Your task to perform on an android device: install app "The Home Depot" Image 0: 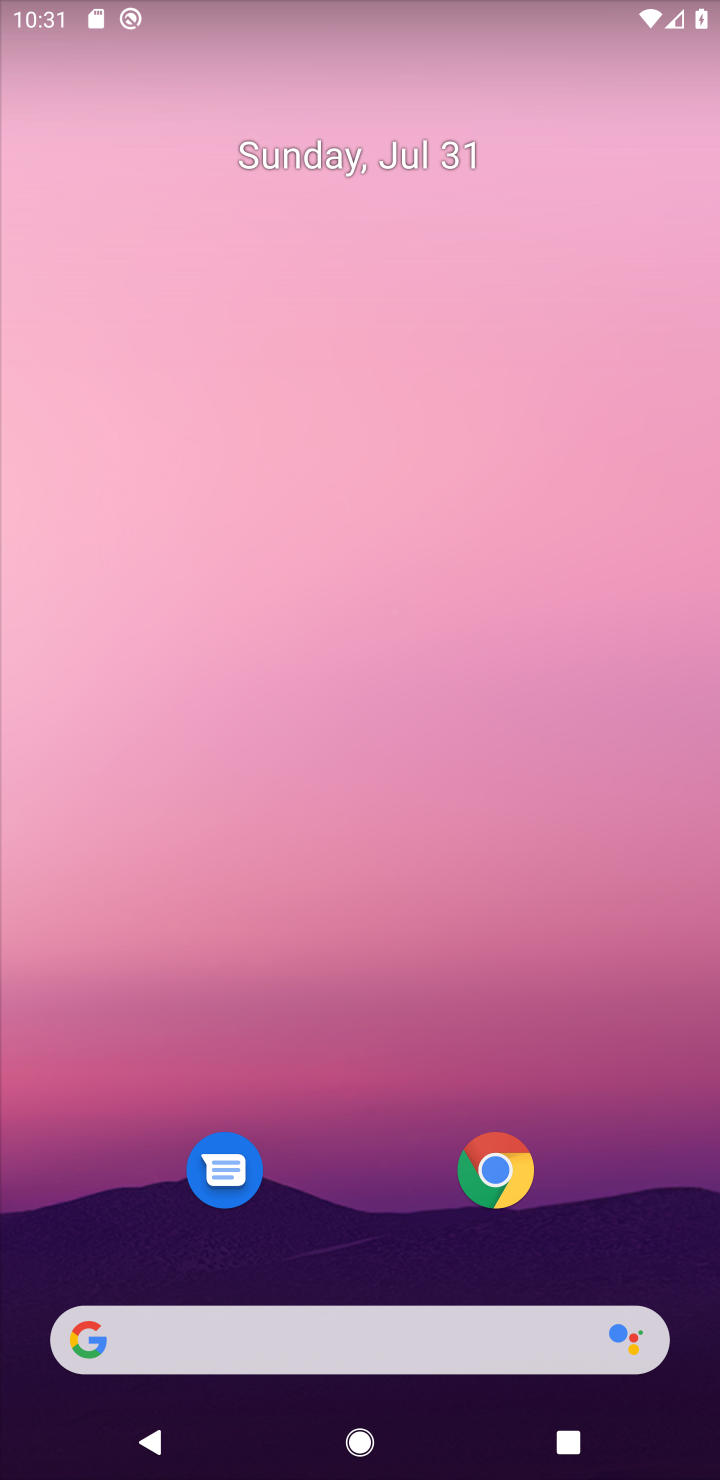
Step 0: press home button
Your task to perform on an android device: install app "The Home Depot" Image 1: 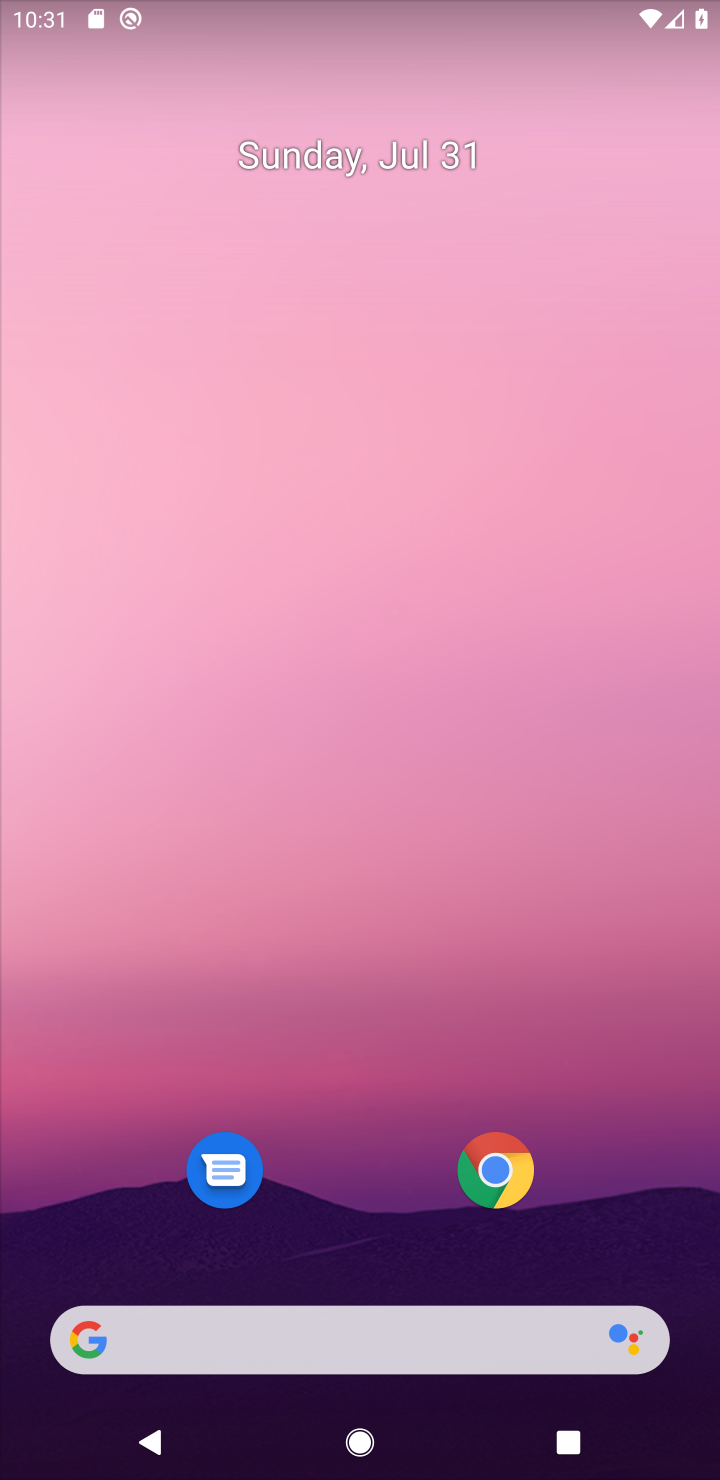
Step 1: drag from (678, 1234) to (322, 36)
Your task to perform on an android device: install app "The Home Depot" Image 2: 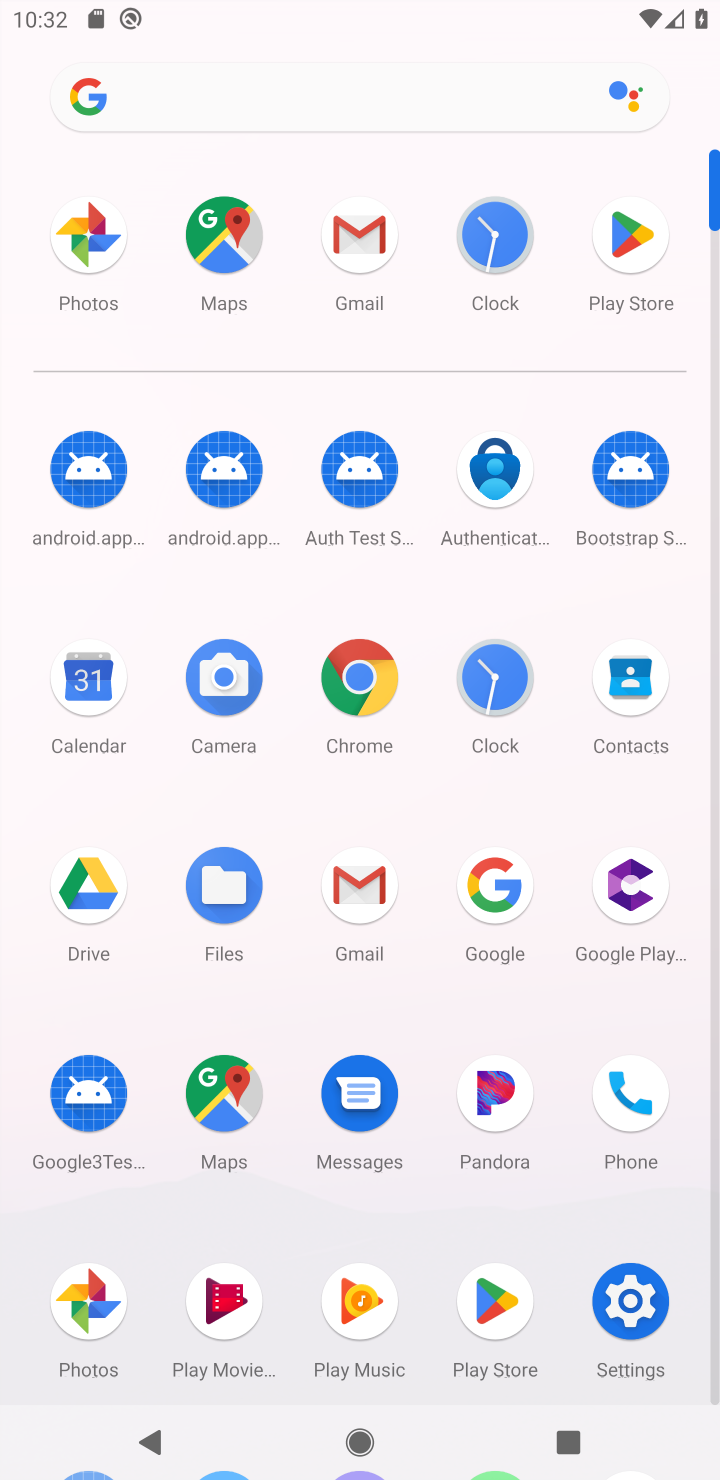
Step 2: click (685, 204)
Your task to perform on an android device: install app "The Home Depot" Image 3: 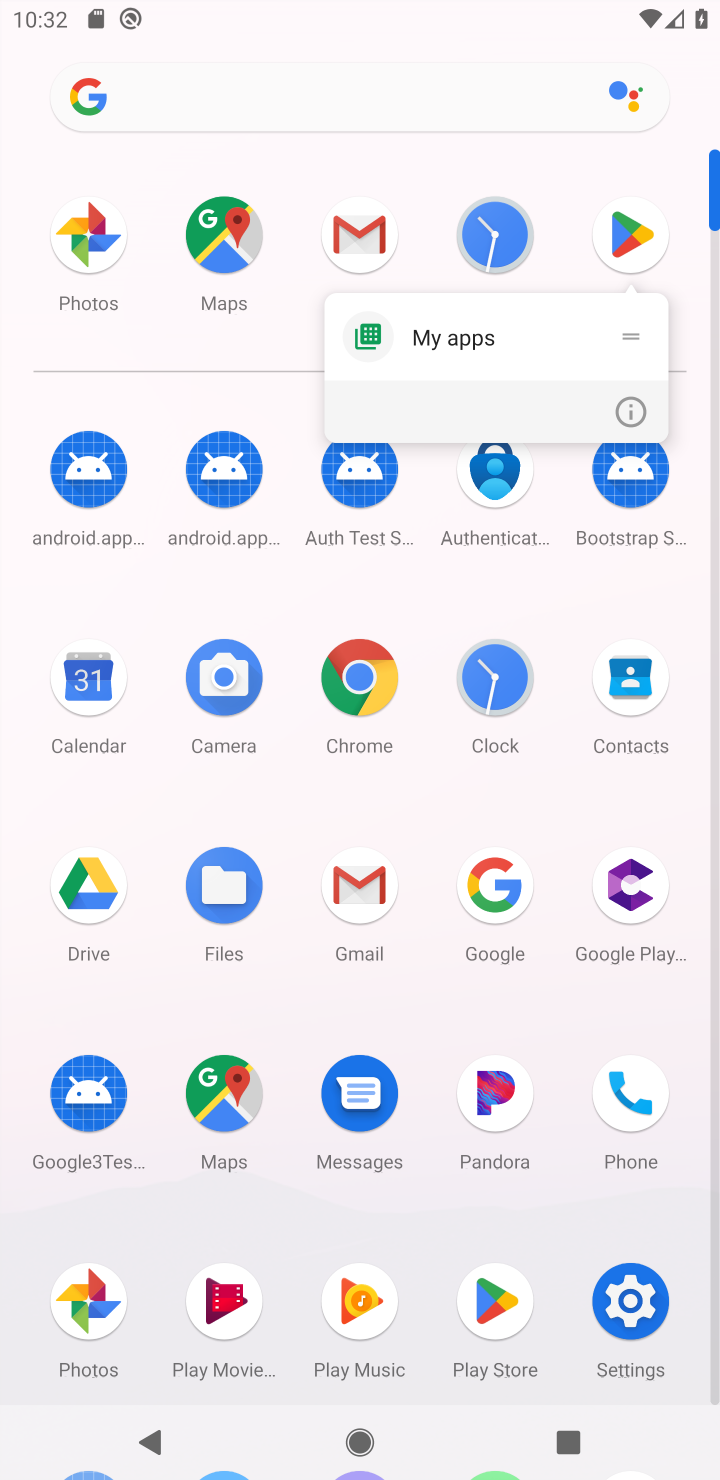
Step 3: click (639, 222)
Your task to perform on an android device: install app "The Home Depot" Image 4: 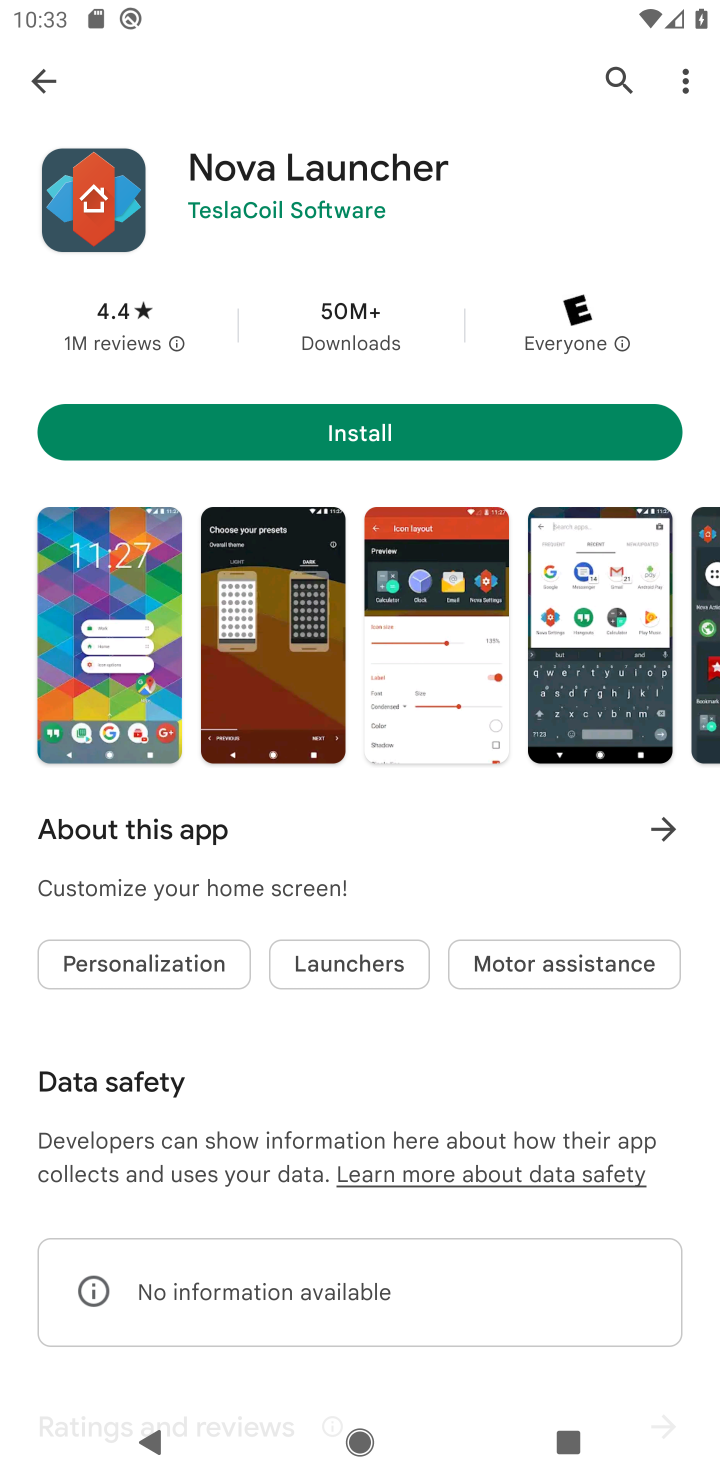
Step 4: press back button
Your task to perform on an android device: install app "The Home Depot" Image 5: 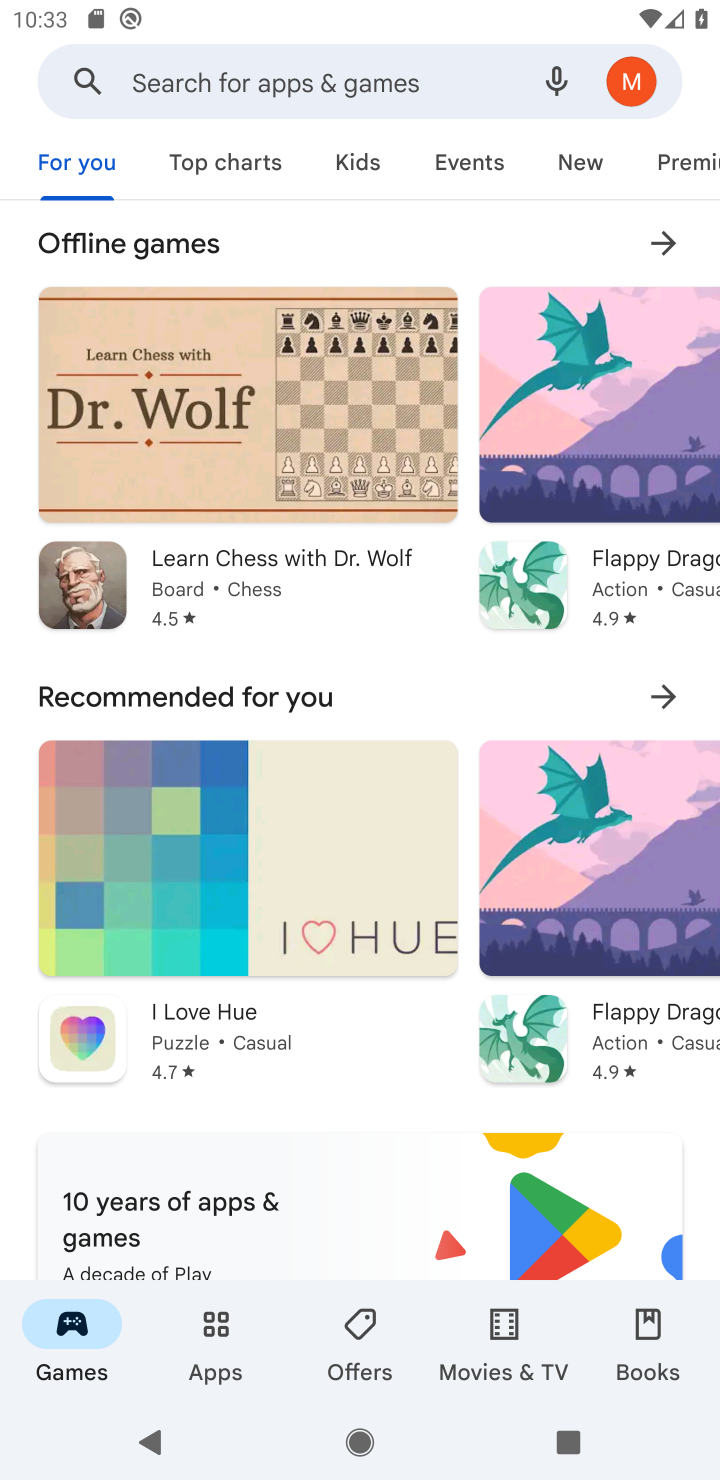
Step 5: click (382, 62)
Your task to perform on an android device: install app "The Home Depot" Image 6: 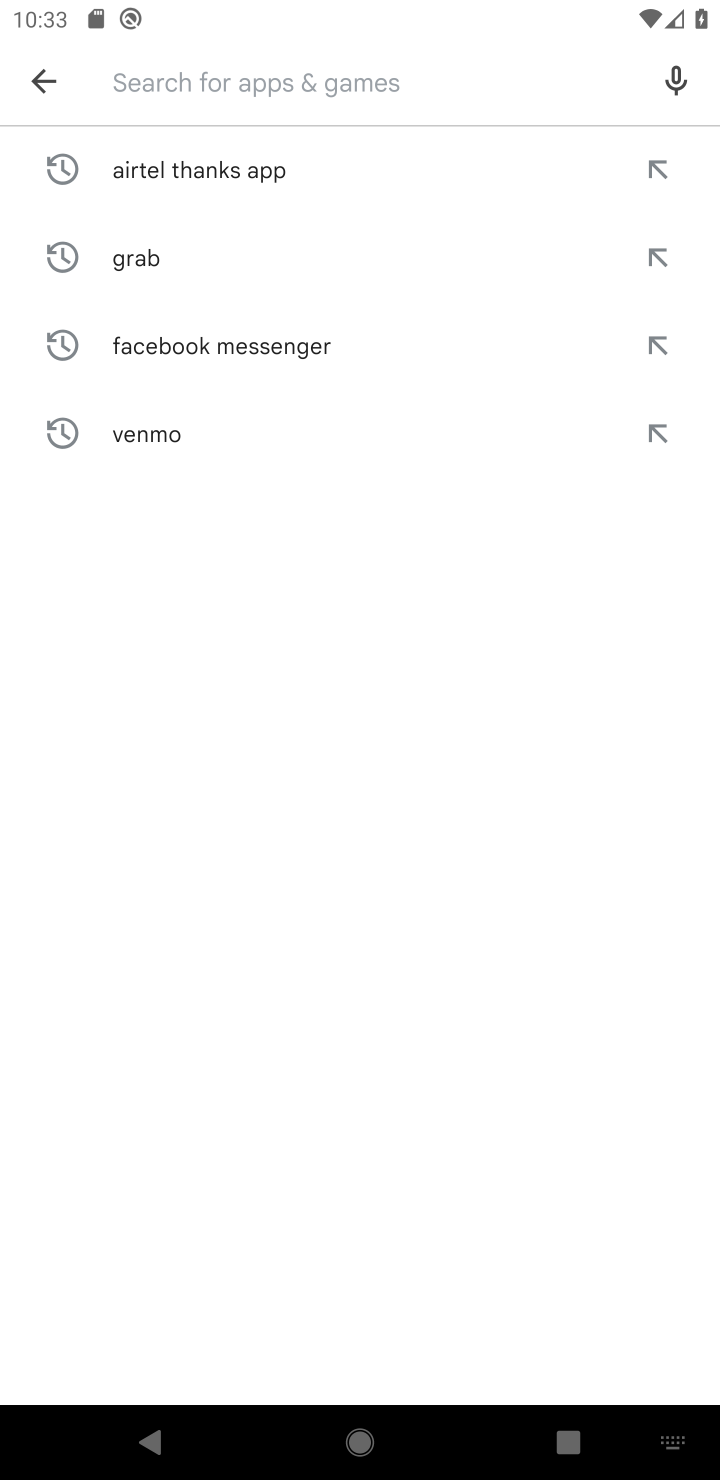
Step 6: type "The Home Depot"
Your task to perform on an android device: install app "The Home Depot" Image 7: 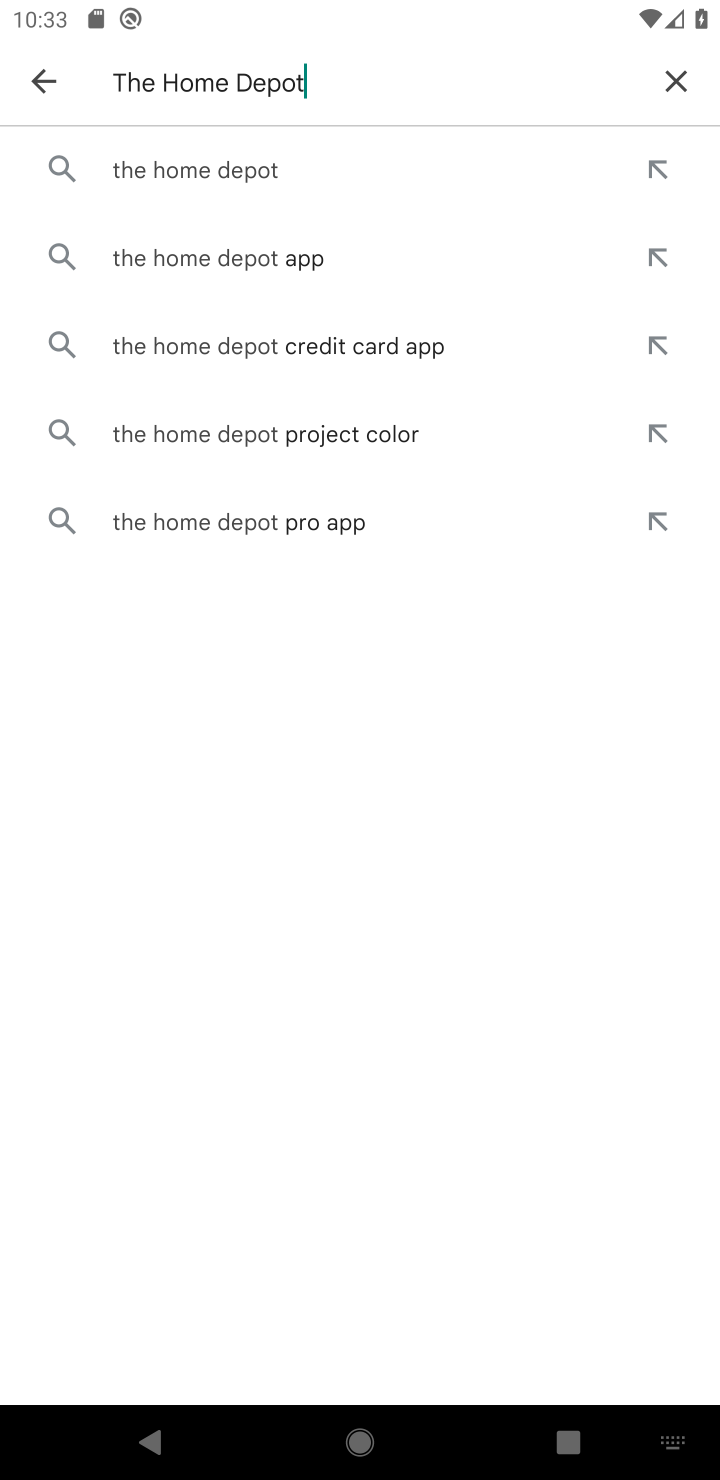
Step 7: click (205, 164)
Your task to perform on an android device: install app "The Home Depot" Image 8: 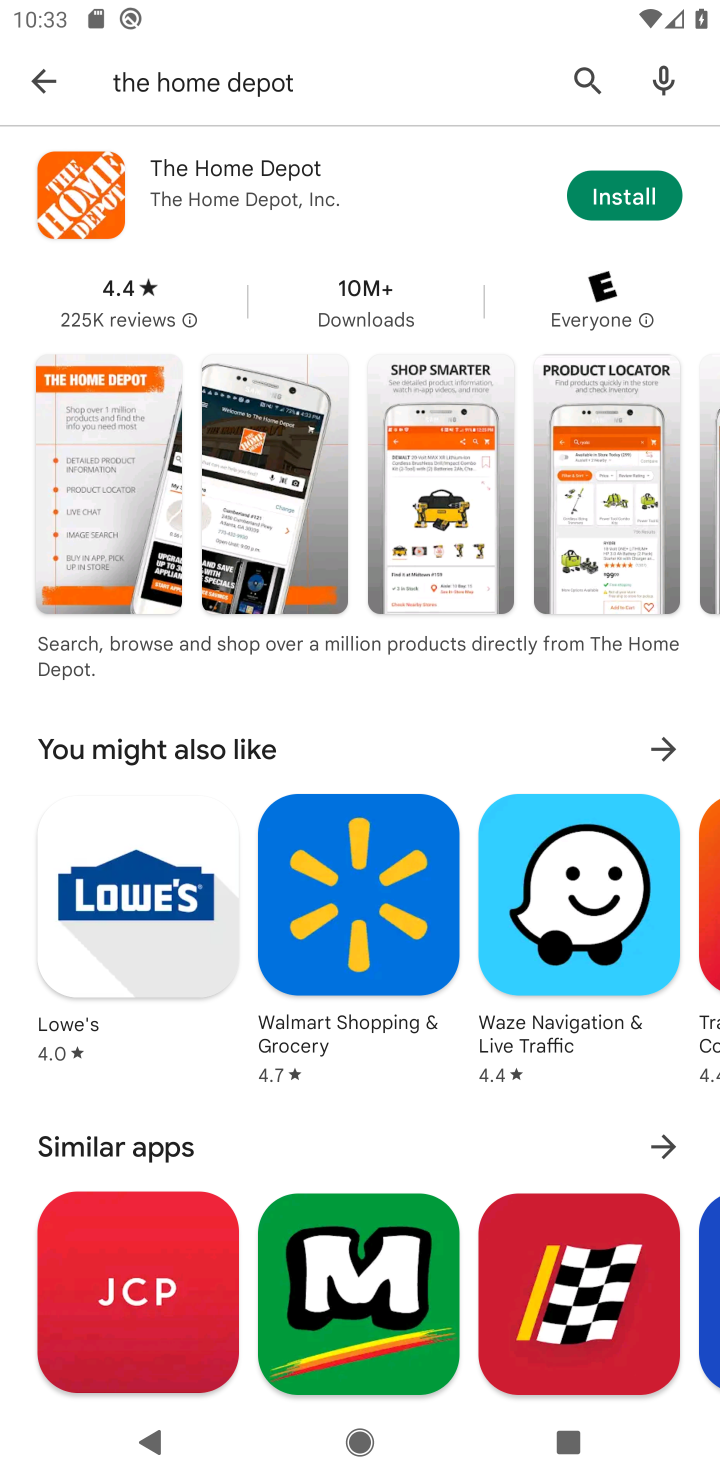
Step 8: click (635, 194)
Your task to perform on an android device: install app "The Home Depot" Image 9: 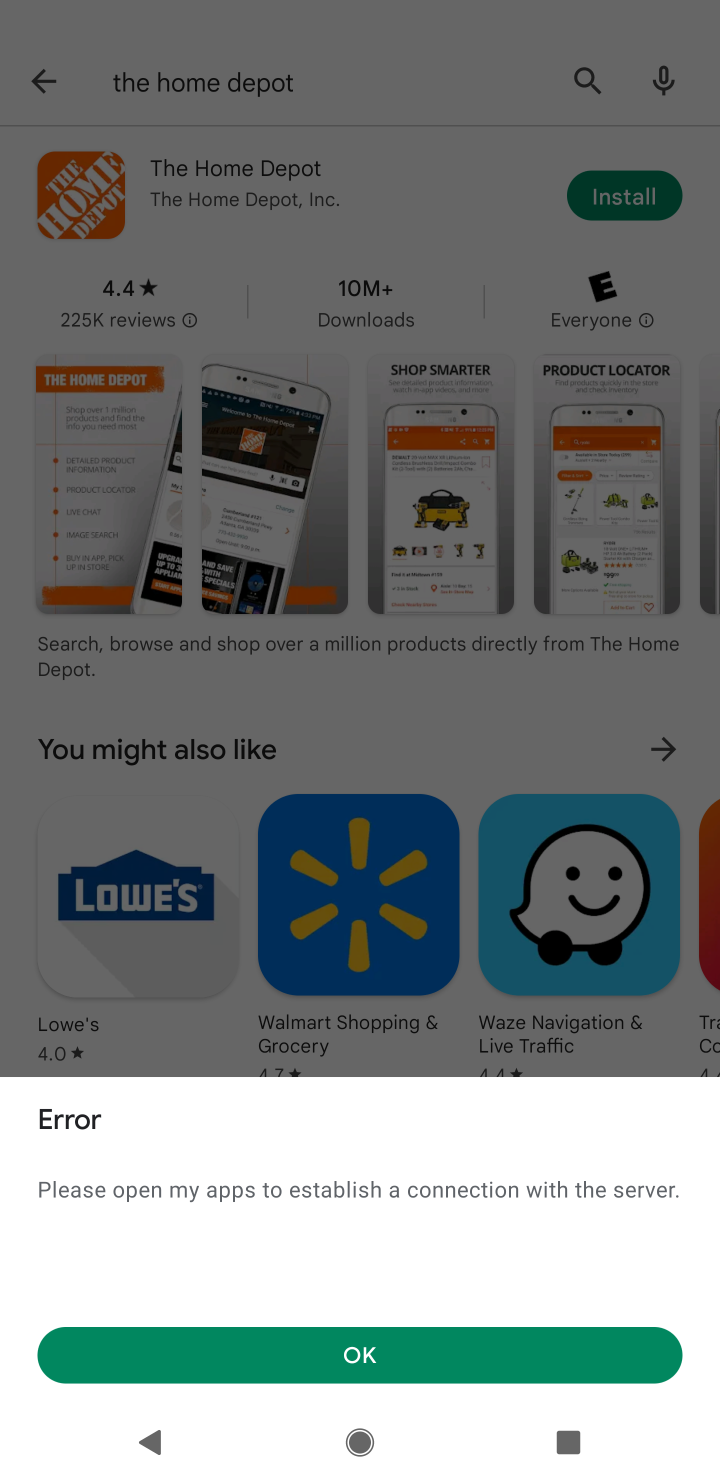
Step 9: click (319, 1343)
Your task to perform on an android device: install app "The Home Depot" Image 10: 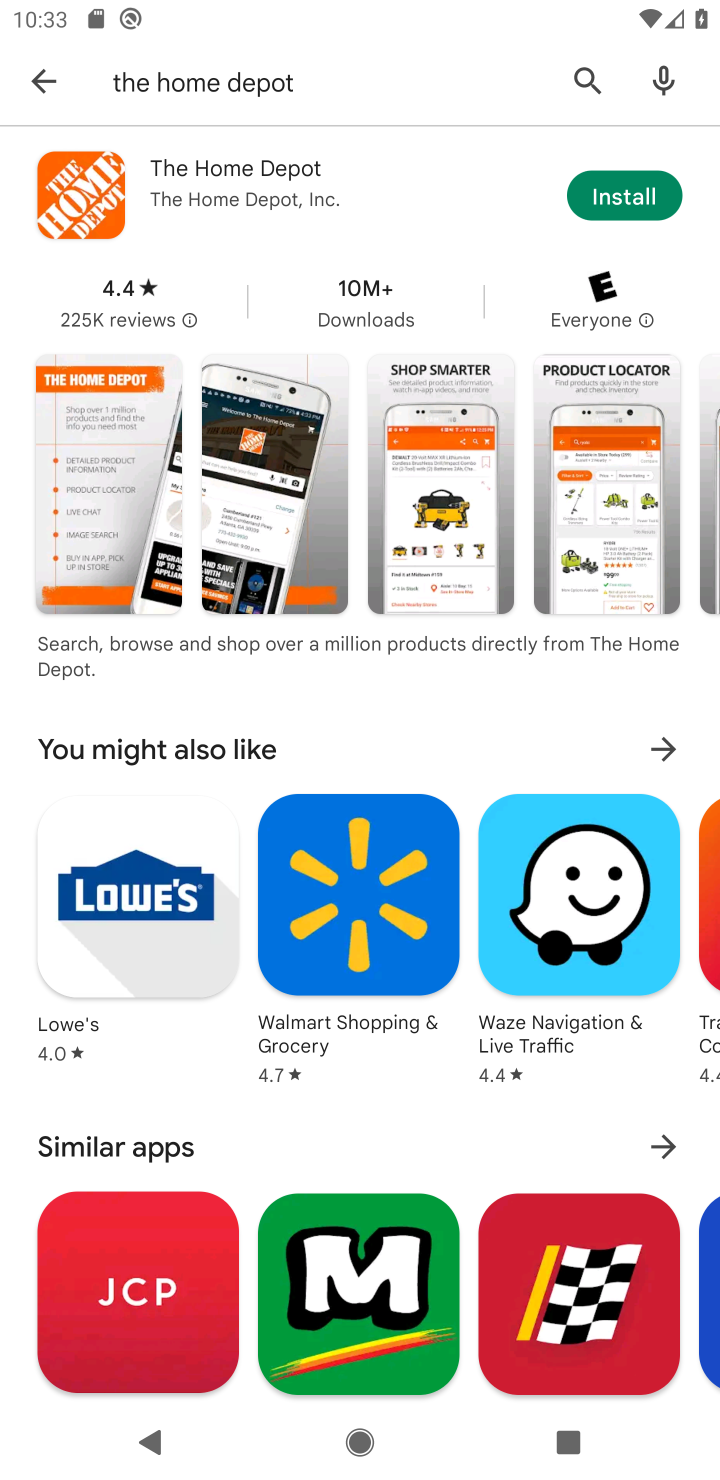
Step 10: task complete